Your task to perform on an android device: refresh tabs in the chrome app Image 0: 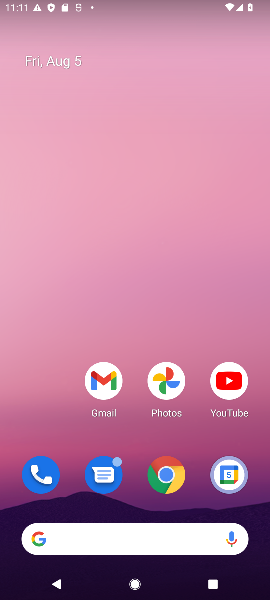
Step 0: click (164, 477)
Your task to perform on an android device: refresh tabs in the chrome app Image 1: 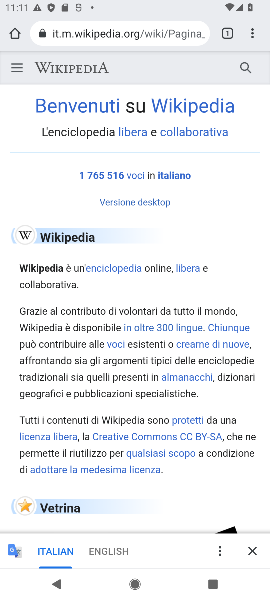
Step 1: click (249, 29)
Your task to perform on an android device: refresh tabs in the chrome app Image 2: 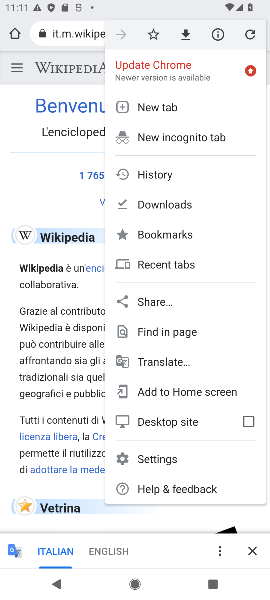
Step 2: click (248, 30)
Your task to perform on an android device: refresh tabs in the chrome app Image 3: 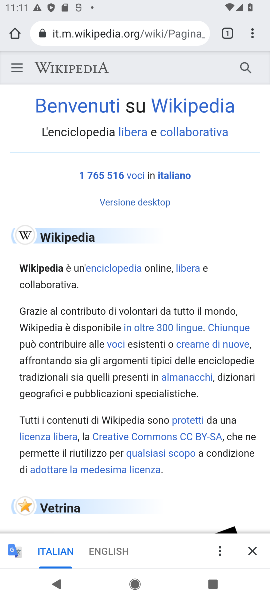
Step 3: task complete